Your task to perform on an android device: Open calendar and show me the fourth week of next month Image 0: 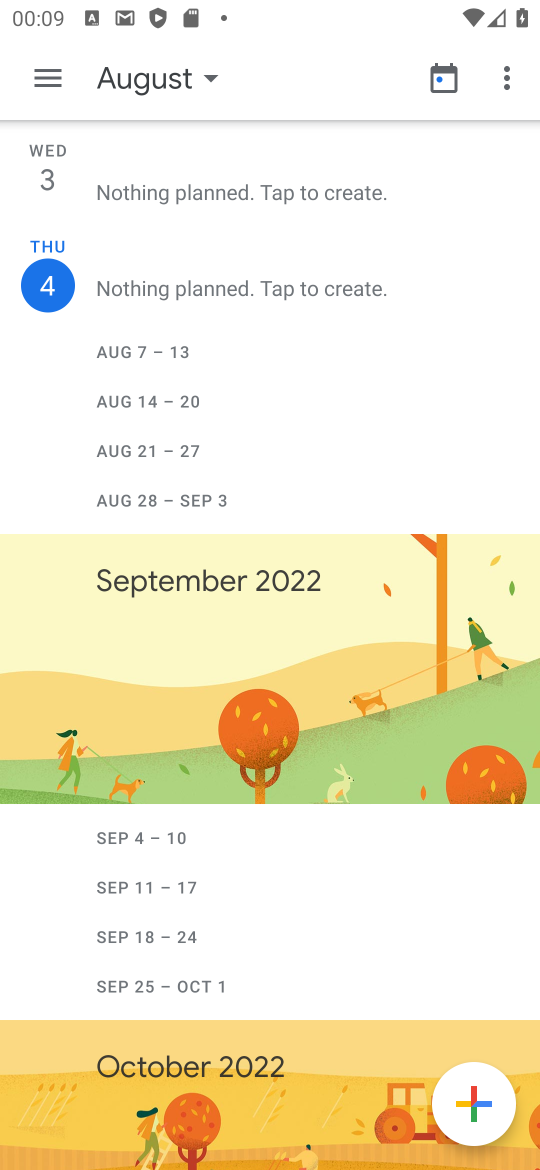
Step 0: click (50, 71)
Your task to perform on an android device: Open calendar and show me the fourth week of next month Image 1: 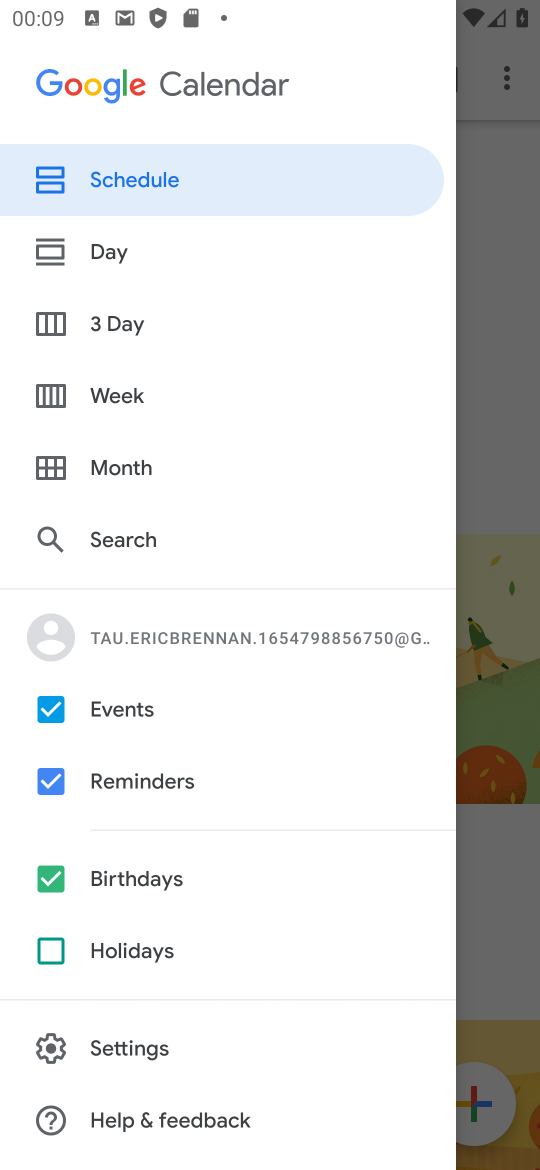
Step 1: click (108, 453)
Your task to perform on an android device: Open calendar and show me the fourth week of next month Image 2: 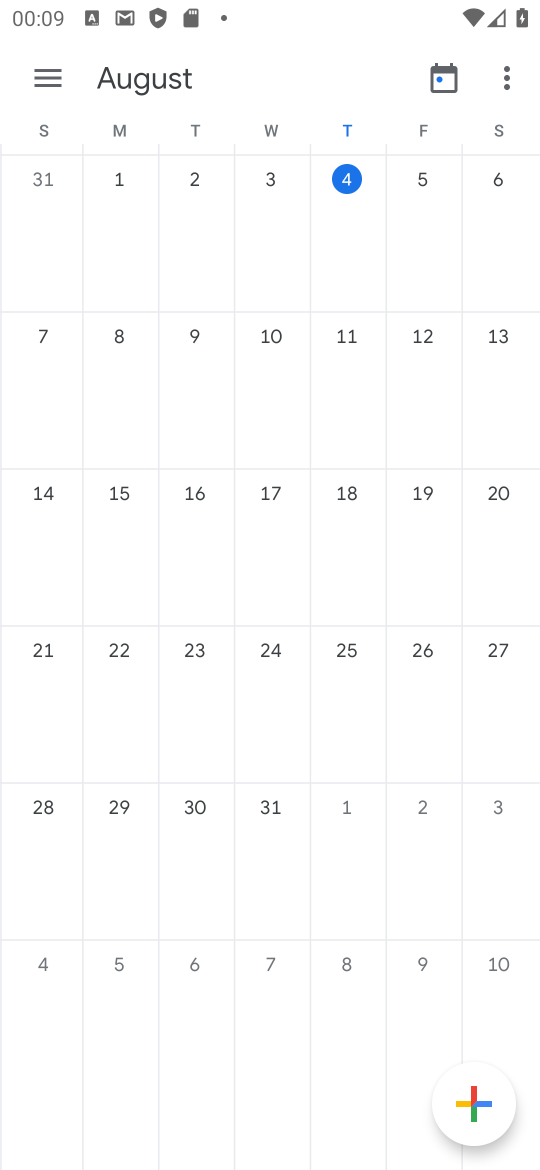
Step 2: drag from (475, 404) to (17, 476)
Your task to perform on an android device: Open calendar and show me the fourth week of next month Image 3: 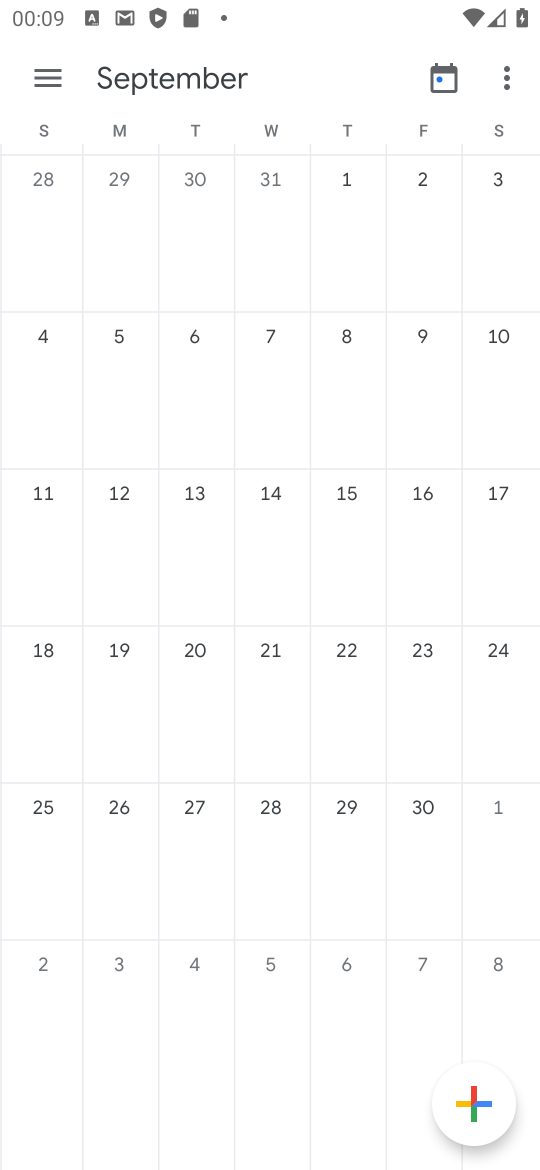
Step 3: click (54, 815)
Your task to perform on an android device: Open calendar and show me the fourth week of next month Image 4: 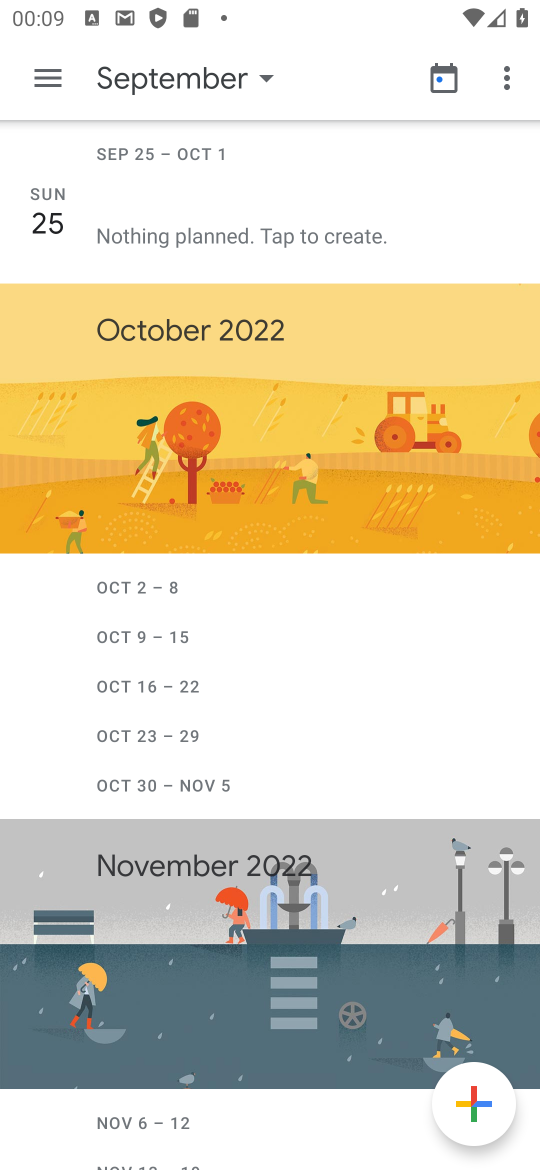
Step 4: click (51, 71)
Your task to perform on an android device: Open calendar and show me the fourth week of next month Image 5: 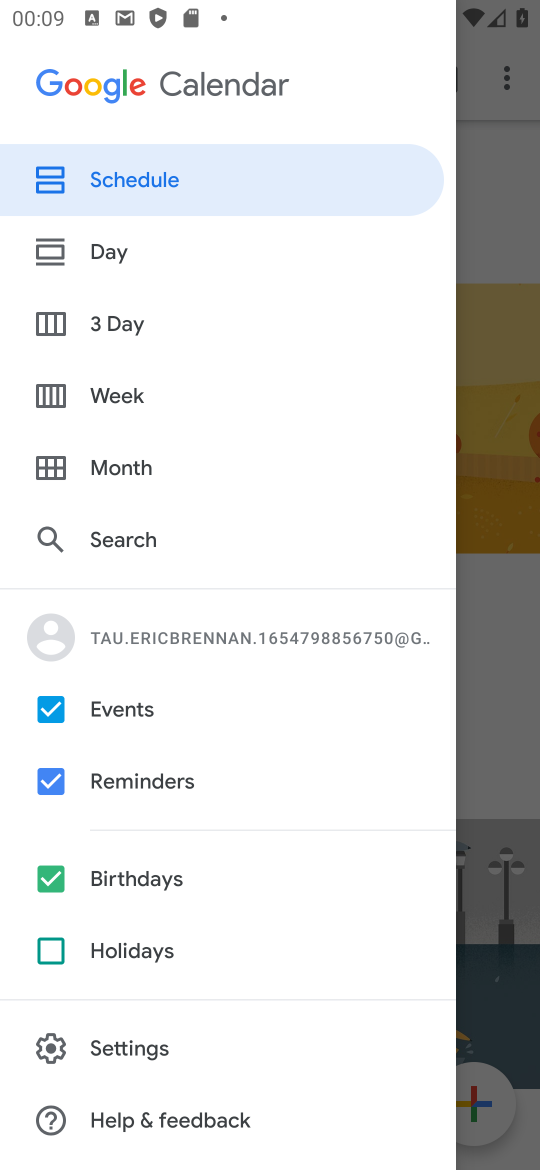
Step 5: click (58, 400)
Your task to perform on an android device: Open calendar and show me the fourth week of next month Image 6: 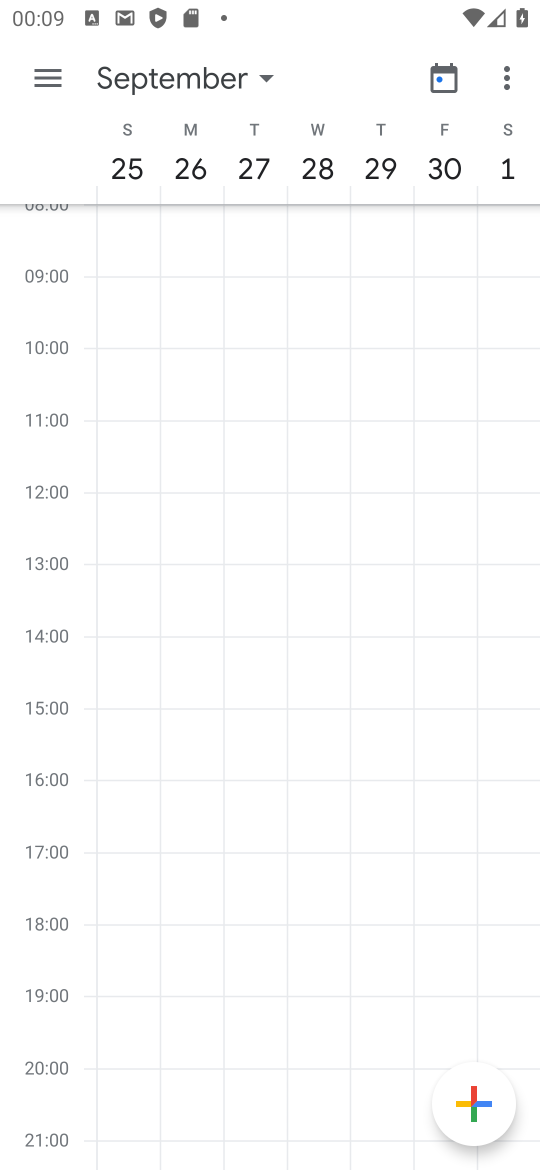
Step 6: task complete